Your task to perform on an android device: find snoozed emails in the gmail app Image 0: 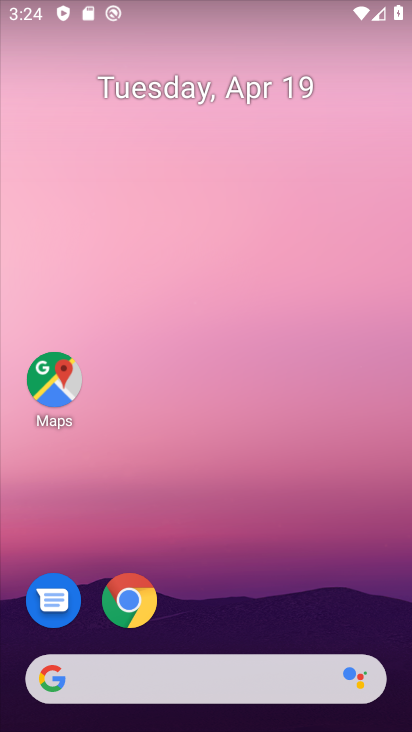
Step 0: drag from (206, 584) to (304, 103)
Your task to perform on an android device: find snoozed emails in the gmail app Image 1: 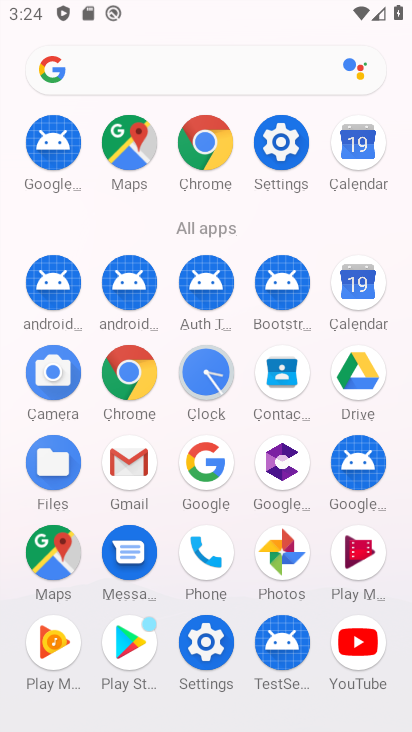
Step 1: click (123, 463)
Your task to perform on an android device: find snoozed emails in the gmail app Image 2: 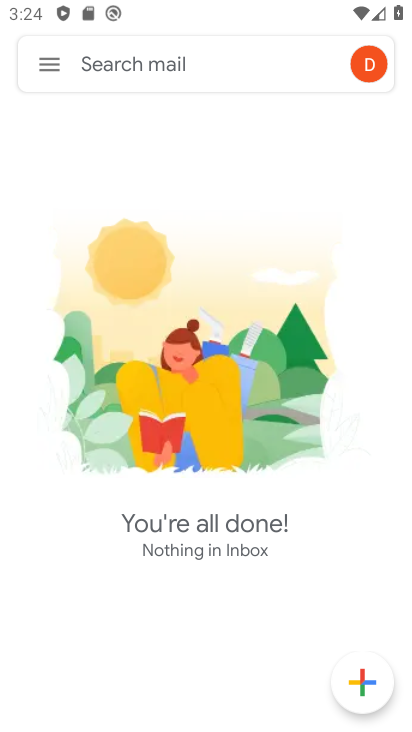
Step 2: click (59, 80)
Your task to perform on an android device: find snoozed emails in the gmail app Image 3: 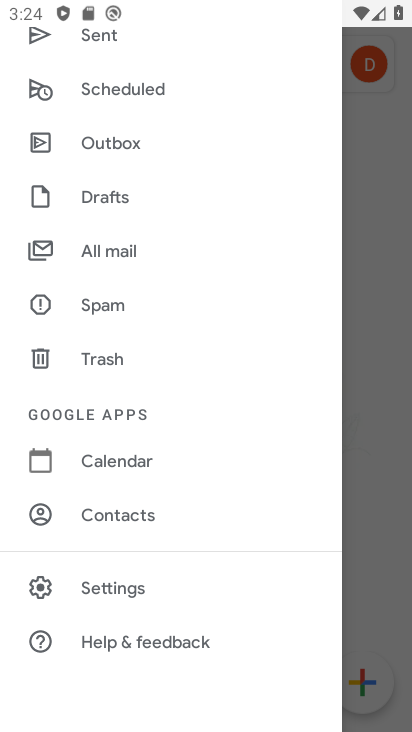
Step 3: drag from (135, 122) to (140, 699)
Your task to perform on an android device: find snoozed emails in the gmail app Image 4: 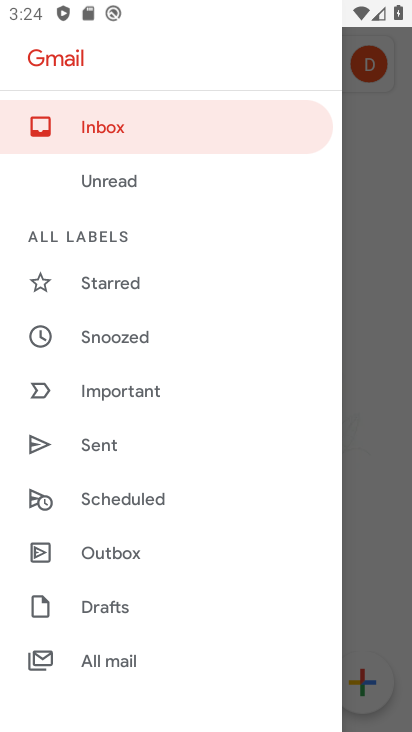
Step 4: click (137, 335)
Your task to perform on an android device: find snoozed emails in the gmail app Image 5: 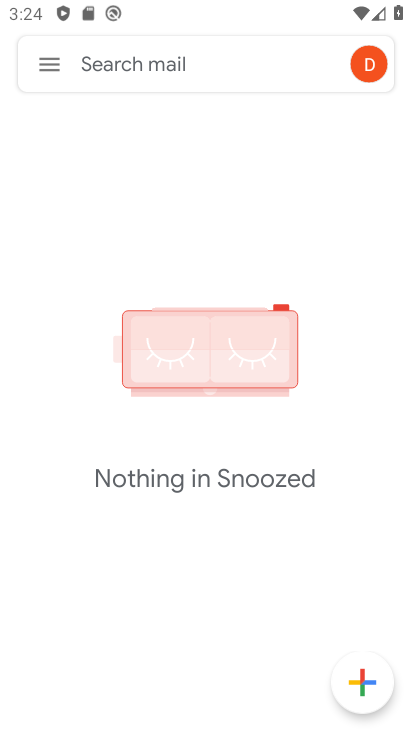
Step 5: task complete